Your task to perform on an android device: Open Android settings Image 0: 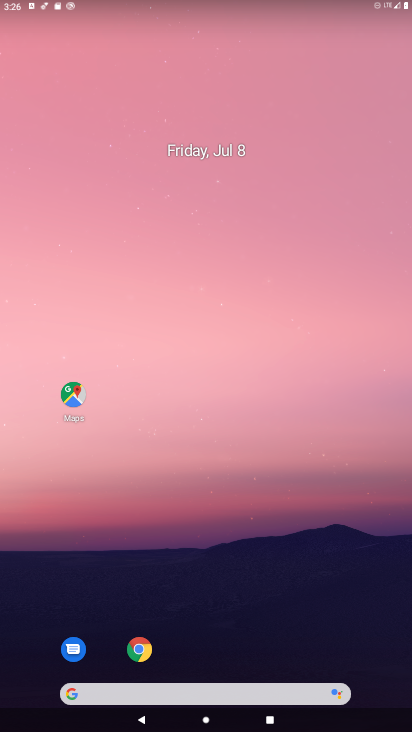
Step 0: drag from (382, 691) to (313, 110)
Your task to perform on an android device: Open Android settings Image 1: 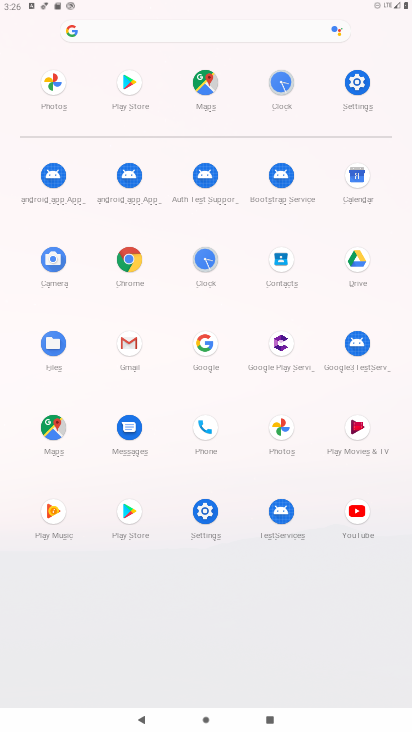
Step 1: click (206, 509)
Your task to perform on an android device: Open Android settings Image 2: 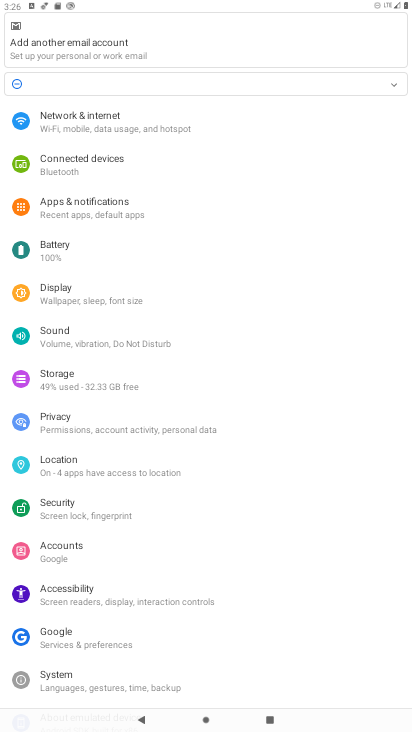
Step 2: drag from (219, 676) to (281, 219)
Your task to perform on an android device: Open Android settings Image 3: 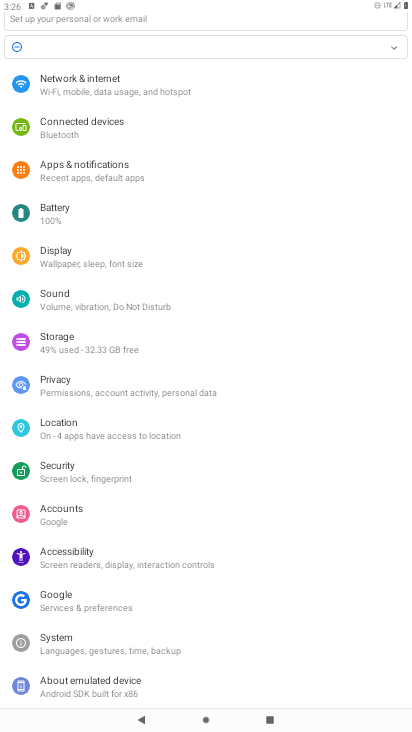
Step 3: click (64, 688)
Your task to perform on an android device: Open Android settings Image 4: 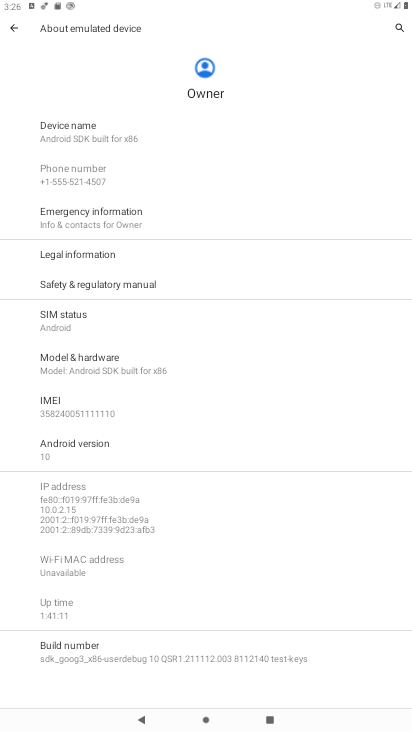
Step 4: task complete